Your task to perform on an android device: move a message to another label in the gmail app Image 0: 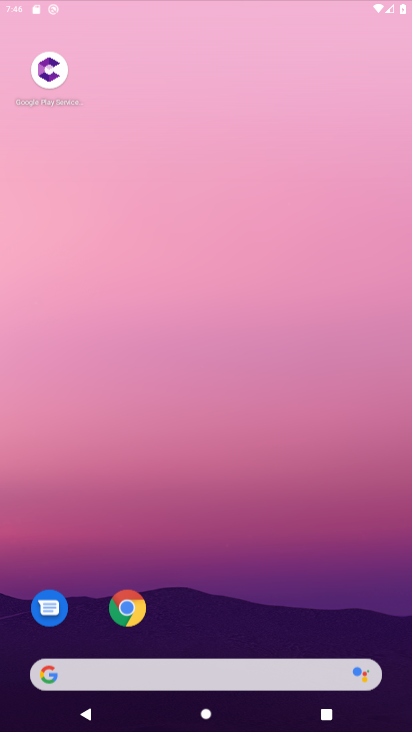
Step 0: drag from (179, 247) to (218, 171)
Your task to perform on an android device: move a message to another label in the gmail app Image 1: 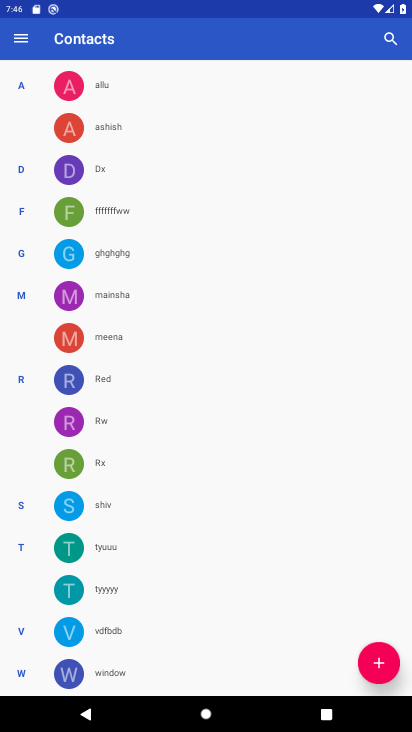
Step 1: press back button
Your task to perform on an android device: move a message to another label in the gmail app Image 2: 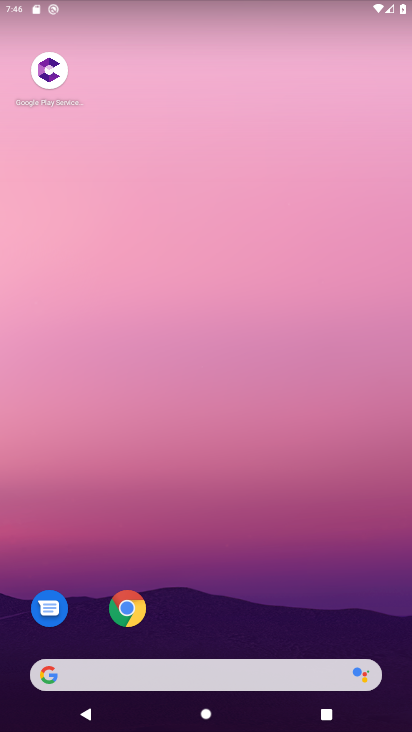
Step 2: drag from (263, 641) to (204, 206)
Your task to perform on an android device: move a message to another label in the gmail app Image 3: 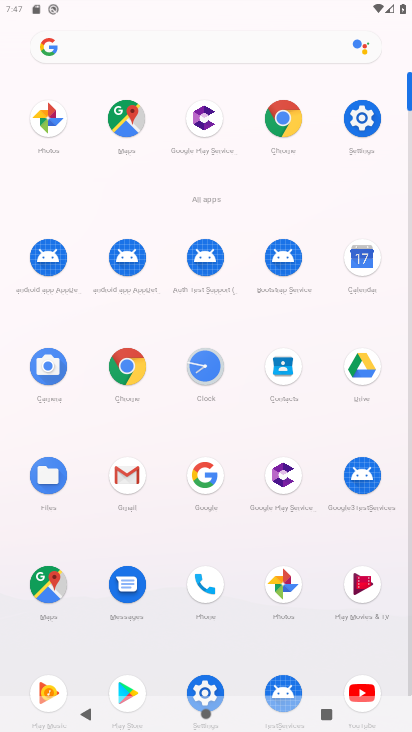
Step 3: click (131, 477)
Your task to perform on an android device: move a message to another label in the gmail app Image 4: 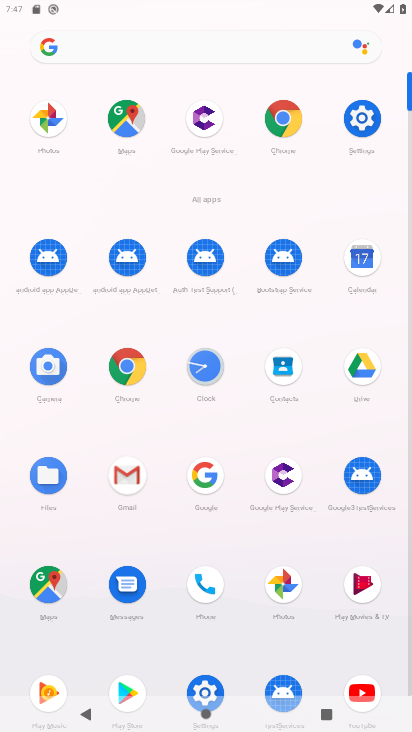
Step 4: click (131, 476)
Your task to perform on an android device: move a message to another label in the gmail app Image 5: 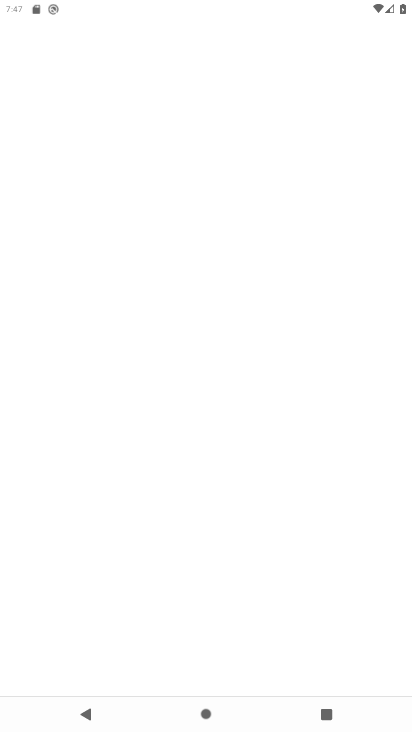
Step 5: click (132, 471)
Your task to perform on an android device: move a message to another label in the gmail app Image 6: 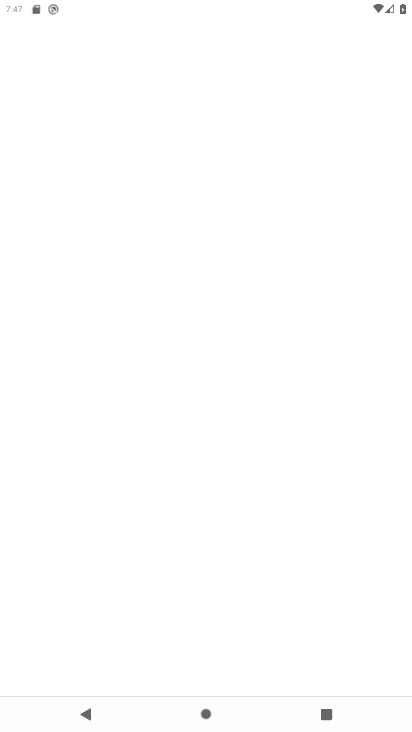
Step 6: click (131, 471)
Your task to perform on an android device: move a message to another label in the gmail app Image 7: 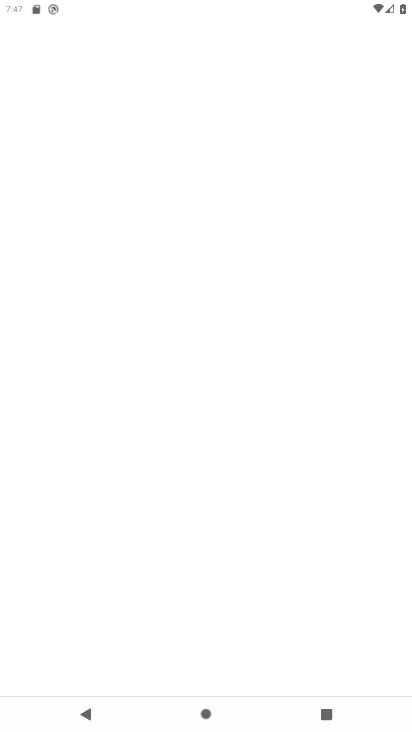
Step 7: click (122, 481)
Your task to perform on an android device: move a message to another label in the gmail app Image 8: 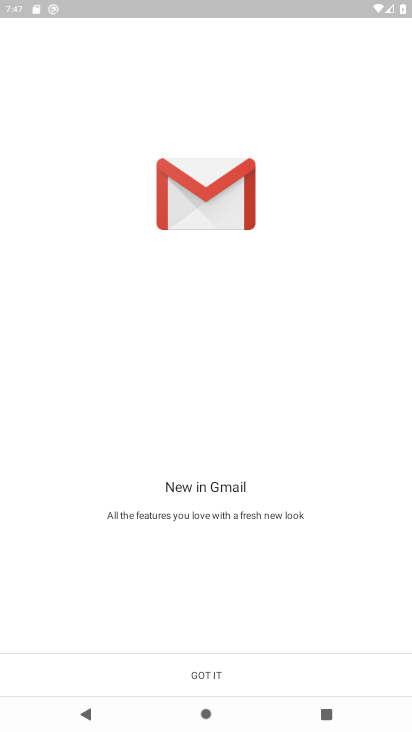
Step 8: click (156, 462)
Your task to perform on an android device: move a message to another label in the gmail app Image 9: 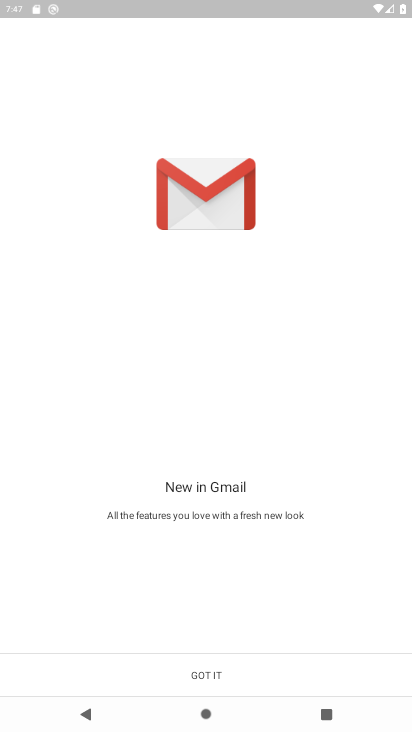
Step 9: click (172, 446)
Your task to perform on an android device: move a message to another label in the gmail app Image 10: 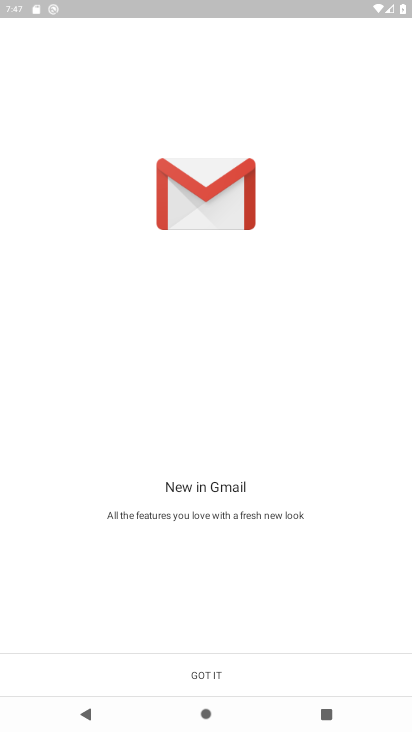
Step 10: click (172, 446)
Your task to perform on an android device: move a message to another label in the gmail app Image 11: 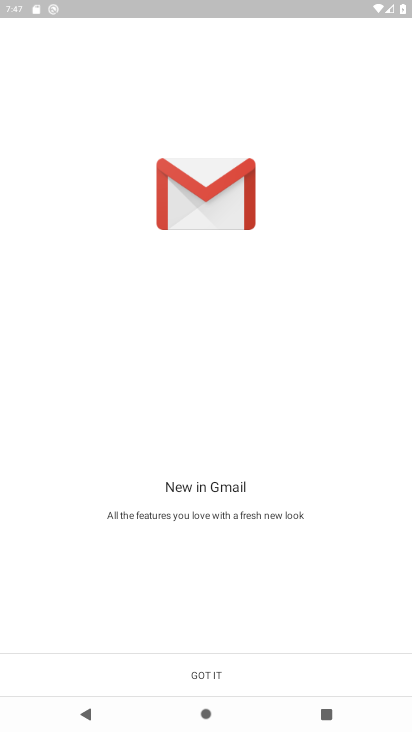
Step 11: click (217, 668)
Your task to perform on an android device: move a message to another label in the gmail app Image 12: 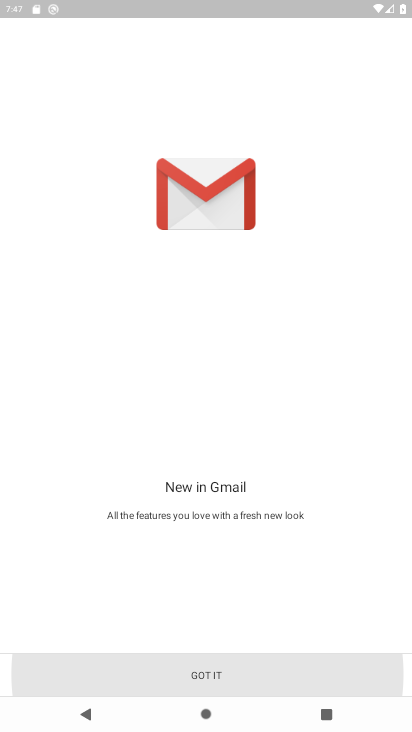
Step 12: click (217, 668)
Your task to perform on an android device: move a message to another label in the gmail app Image 13: 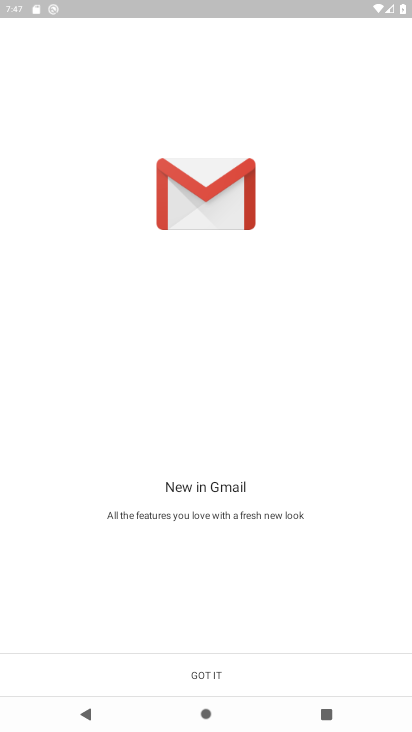
Step 13: click (233, 682)
Your task to perform on an android device: move a message to another label in the gmail app Image 14: 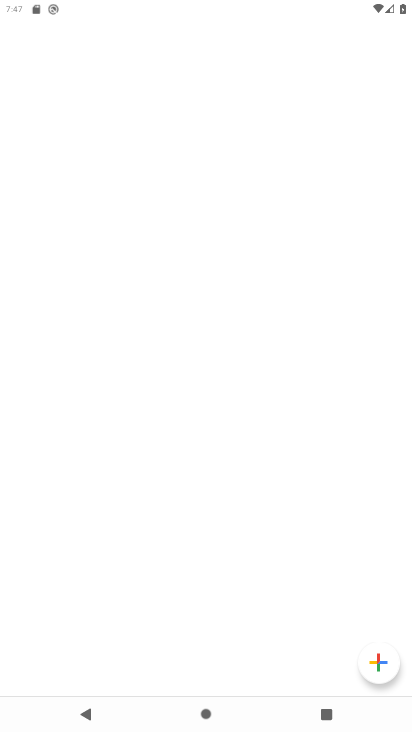
Step 14: click (218, 668)
Your task to perform on an android device: move a message to another label in the gmail app Image 15: 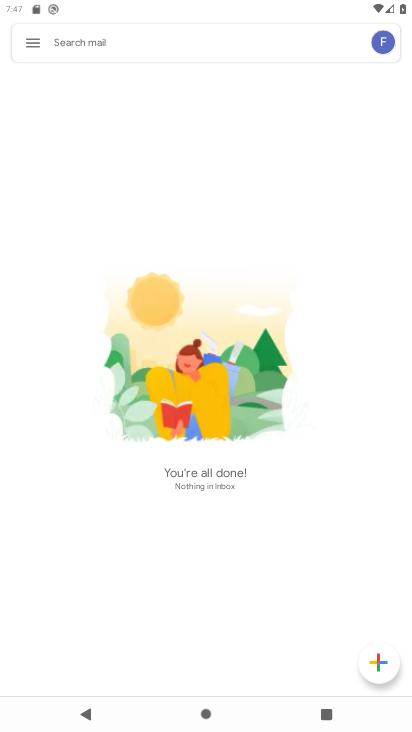
Step 15: click (37, 37)
Your task to perform on an android device: move a message to another label in the gmail app Image 16: 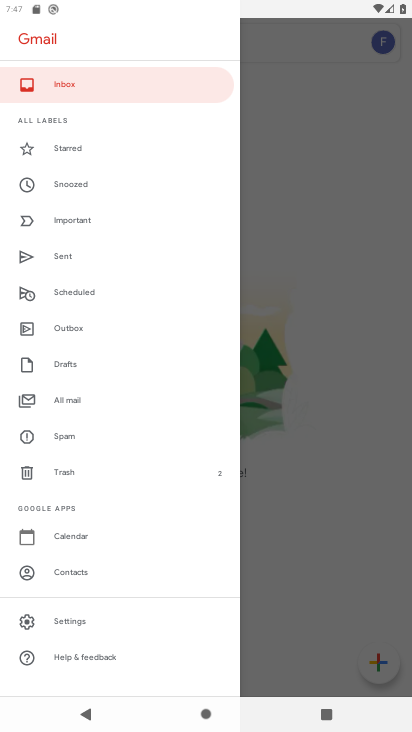
Step 16: click (62, 394)
Your task to perform on an android device: move a message to another label in the gmail app Image 17: 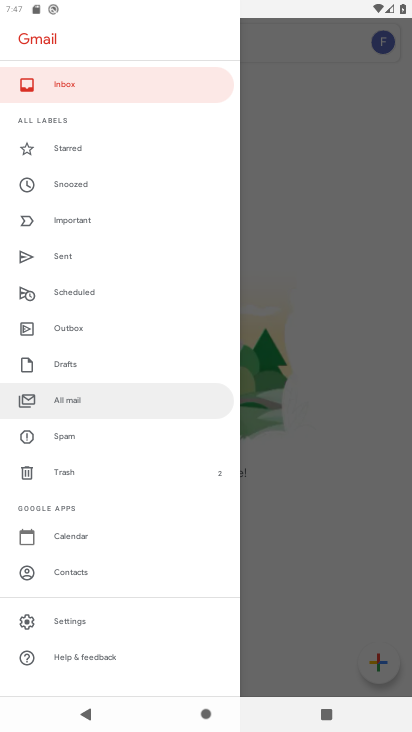
Step 17: click (62, 391)
Your task to perform on an android device: move a message to another label in the gmail app Image 18: 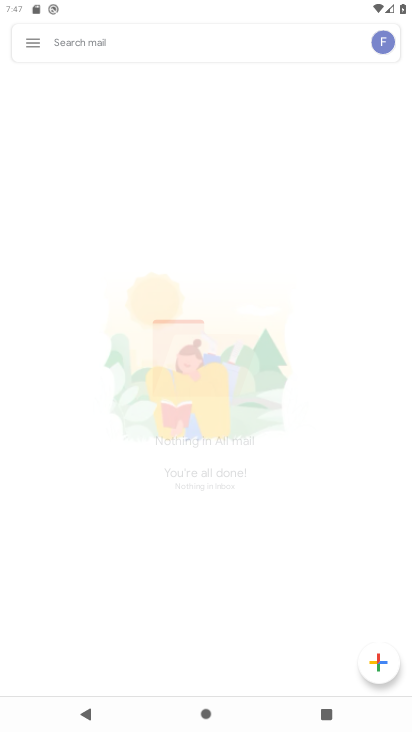
Step 18: click (64, 393)
Your task to perform on an android device: move a message to another label in the gmail app Image 19: 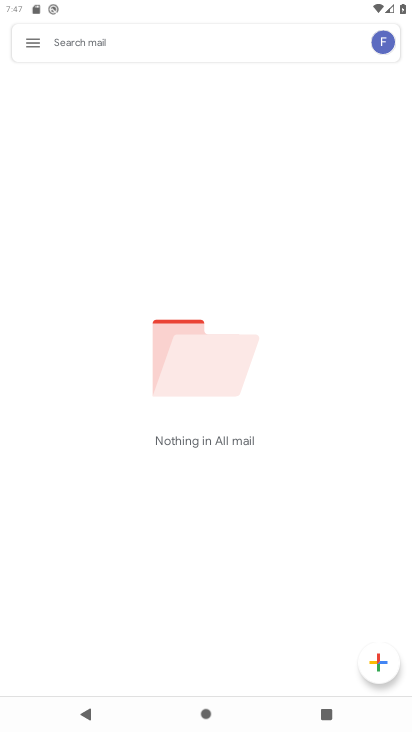
Step 19: task complete